Your task to perform on an android device: Go to Google maps Image 0: 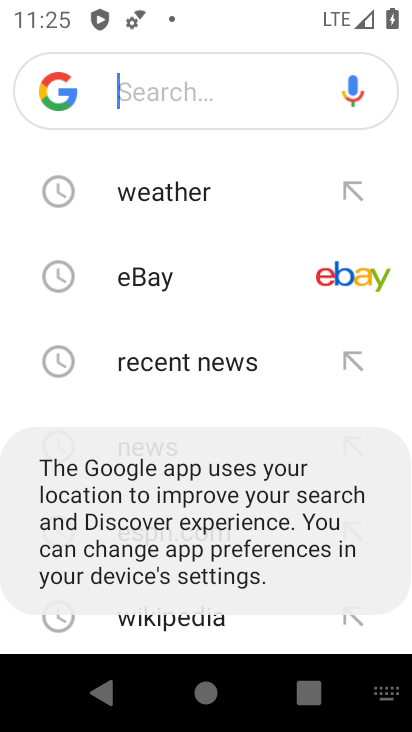
Step 0: press back button
Your task to perform on an android device: Go to Google maps Image 1: 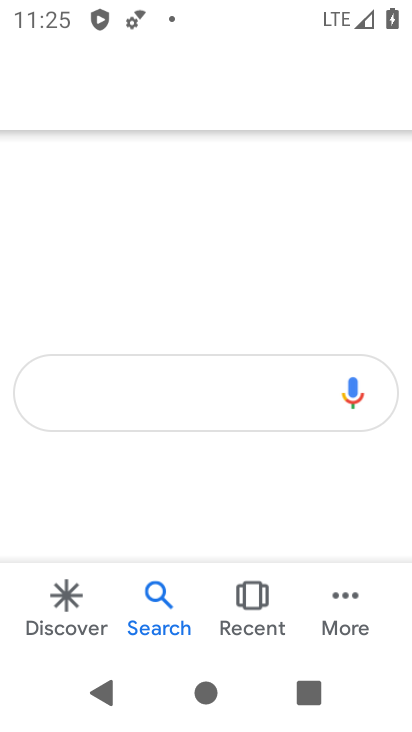
Step 1: press home button
Your task to perform on an android device: Go to Google maps Image 2: 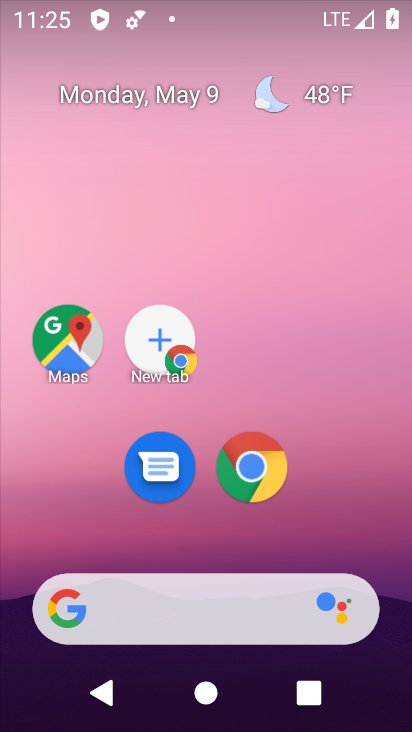
Step 2: click (75, 332)
Your task to perform on an android device: Go to Google maps Image 3: 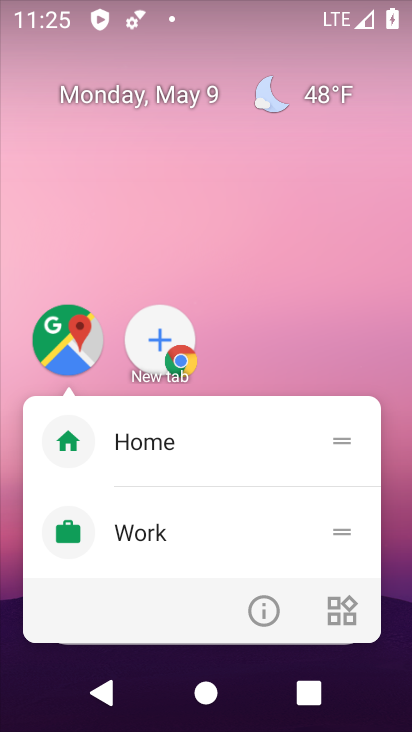
Step 3: click (75, 332)
Your task to perform on an android device: Go to Google maps Image 4: 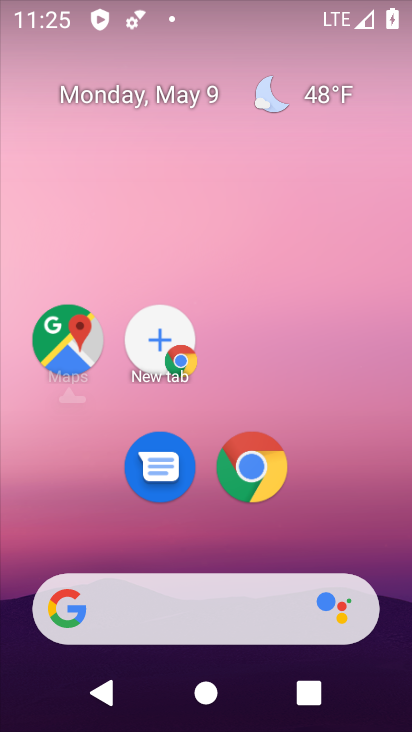
Step 4: click (75, 332)
Your task to perform on an android device: Go to Google maps Image 5: 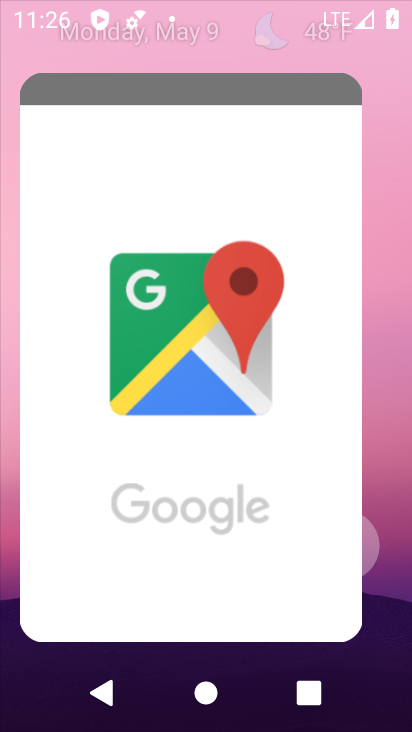
Step 5: click (75, 332)
Your task to perform on an android device: Go to Google maps Image 6: 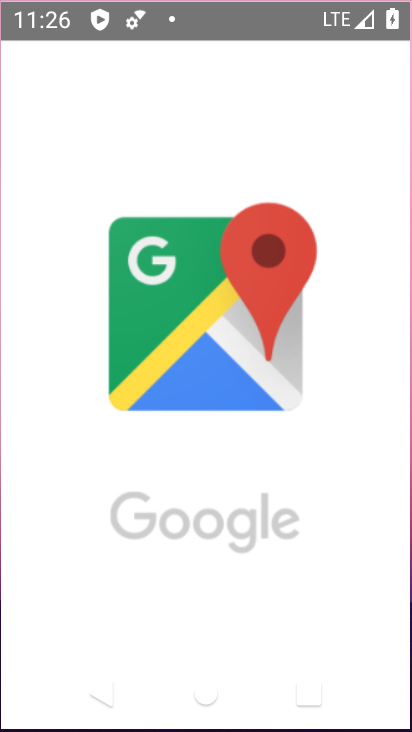
Step 6: click (75, 332)
Your task to perform on an android device: Go to Google maps Image 7: 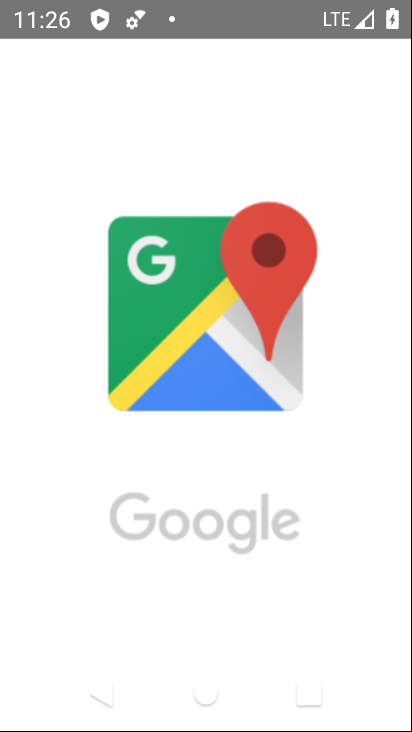
Step 7: click (200, 311)
Your task to perform on an android device: Go to Google maps Image 8: 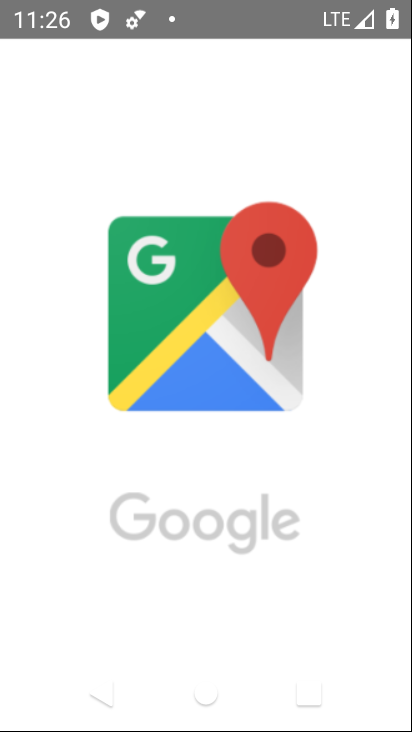
Step 8: click (202, 314)
Your task to perform on an android device: Go to Google maps Image 9: 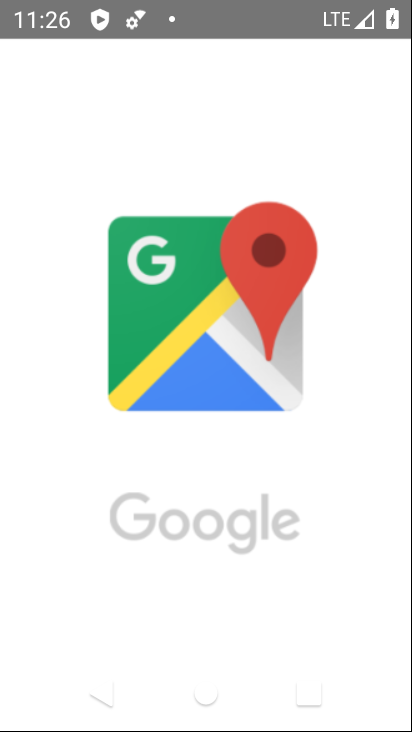
Step 9: click (219, 331)
Your task to perform on an android device: Go to Google maps Image 10: 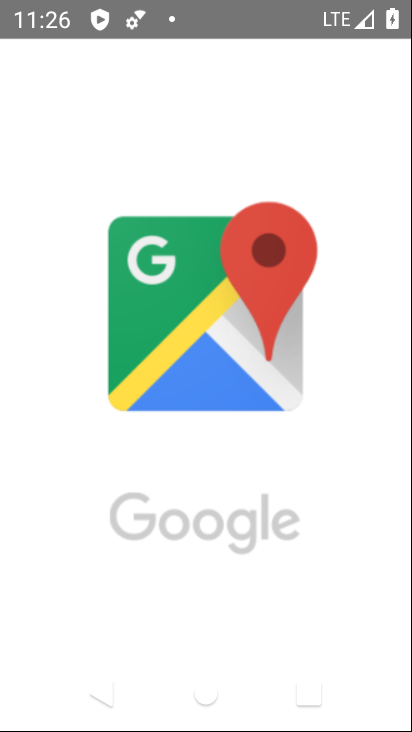
Step 10: click (216, 325)
Your task to perform on an android device: Go to Google maps Image 11: 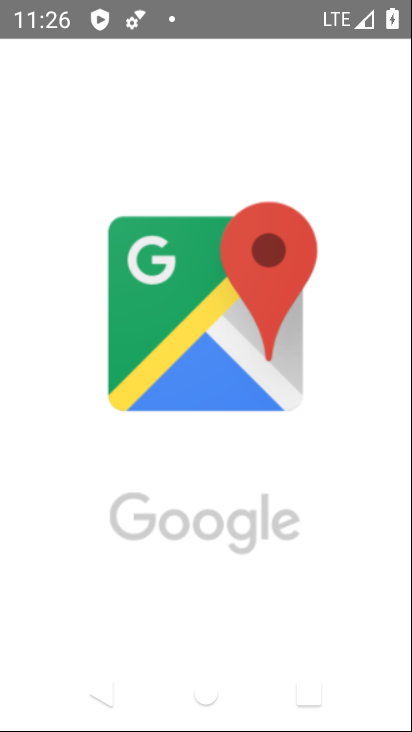
Step 11: click (209, 313)
Your task to perform on an android device: Go to Google maps Image 12: 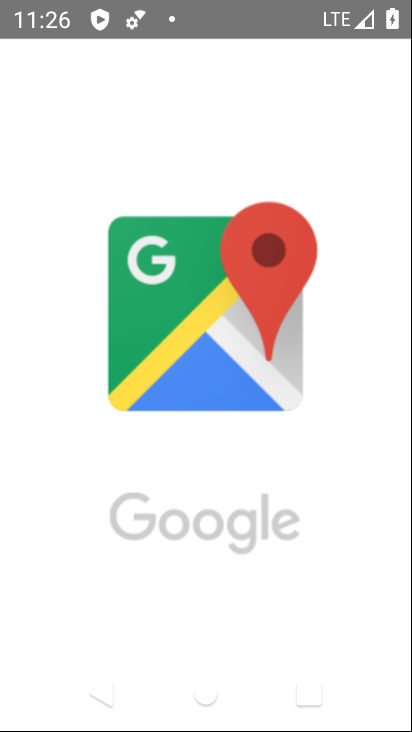
Step 12: drag from (189, 509) to (187, 216)
Your task to perform on an android device: Go to Google maps Image 13: 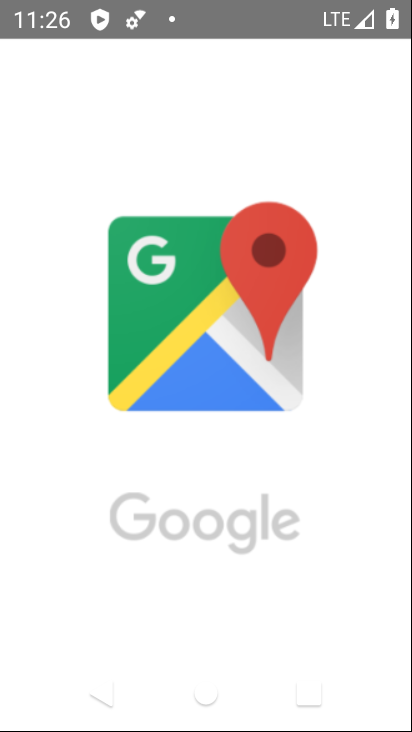
Step 13: drag from (142, 357) to (134, 137)
Your task to perform on an android device: Go to Google maps Image 14: 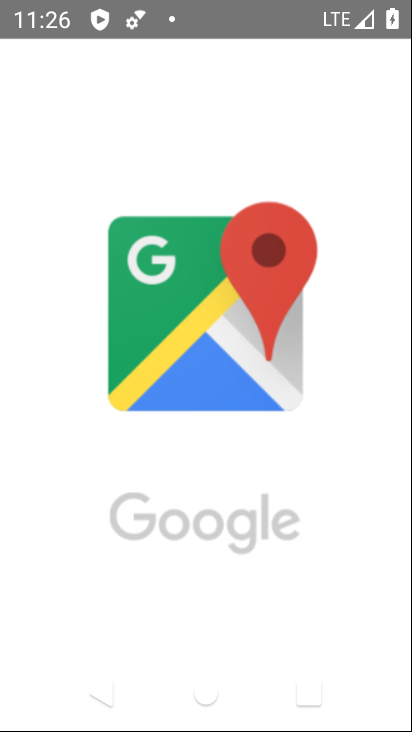
Step 14: drag from (201, 359) to (186, 255)
Your task to perform on an android device: Go to Google maps Image 15: 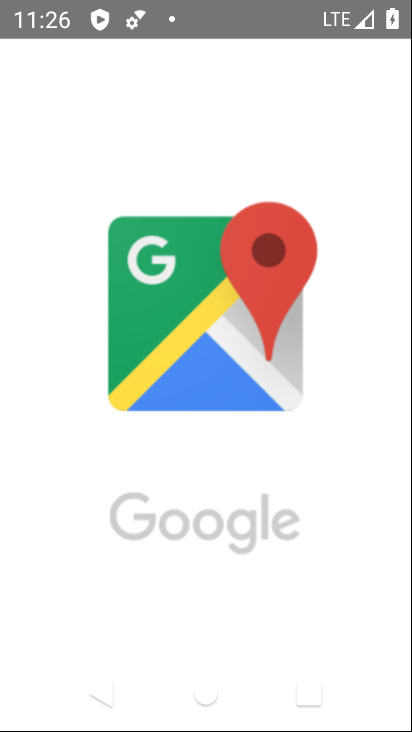
Step 15: click (241, 364)
Your task to perform on an android device: Go to Google maps Image 16: 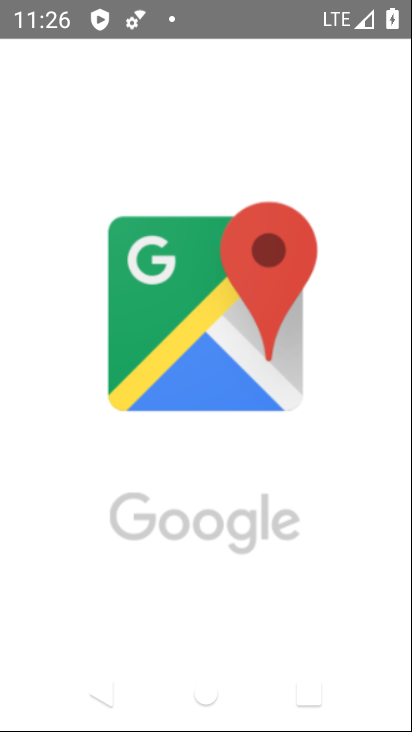
Step 16: click (235, 348)
Your task to perform on an android device: Go to Google maps Image 17: 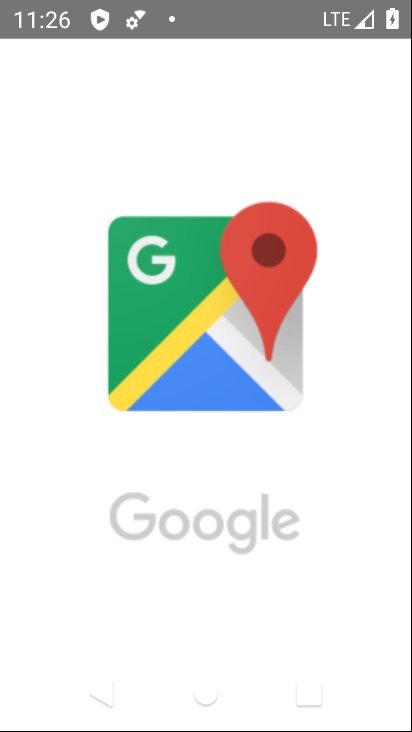
Step 17: task complete